Your task to perform on an android device: Search for Italian restaurants on Maps Image 0: 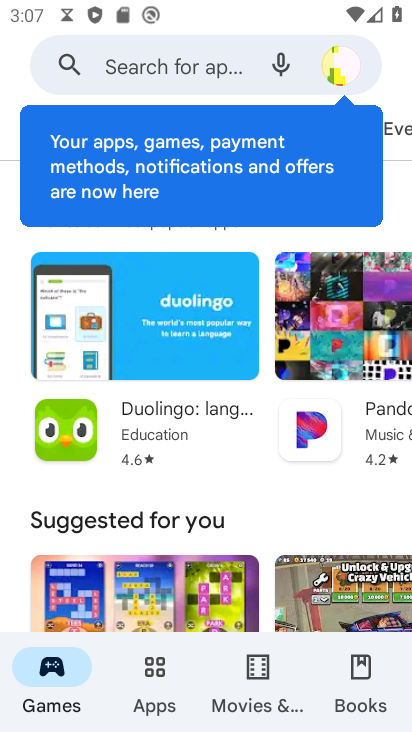
Step 0: press home button
Your task to perform on an android device: Search for Italian restaurants on Maps Image 1: 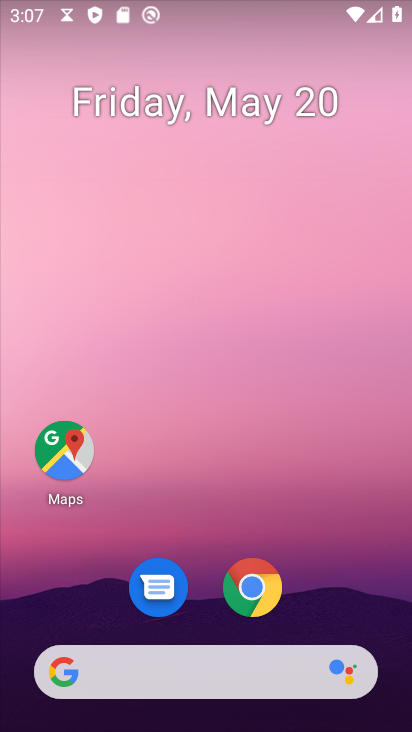
Step 1: click (54, 458)
Your task to perform on an android device: Search for Italian restaurants on Maps Image 2: 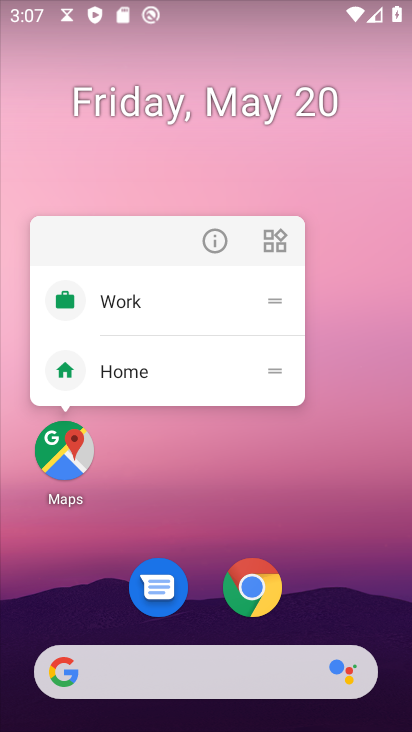
Step 2: click (54, 458)
Your task to perform on an android device: Search for Italian restaurants on Maps Image 3: 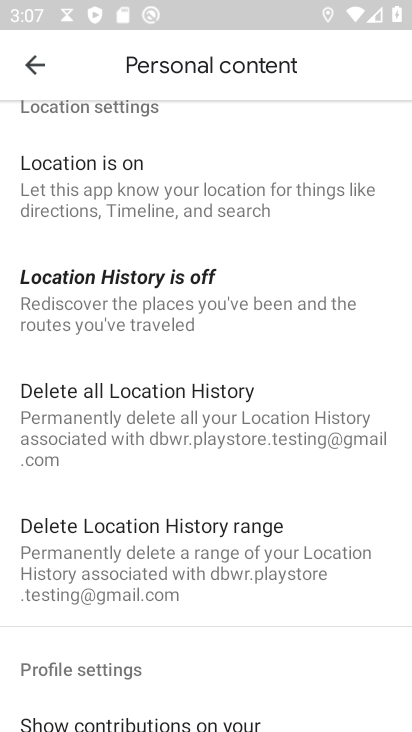
Step 3: click (37, 67)
Your task to perform on an android device: Search for Italian restaurants on Maps Image 4: 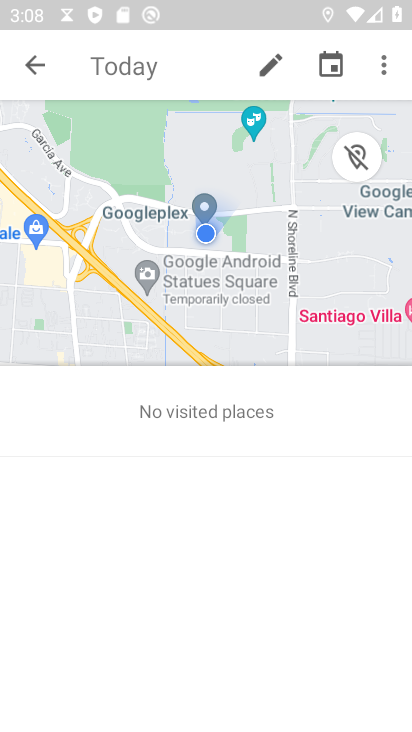
Step 4: click (37, 67)
Your task to perform on an android device: Search for Italian restaurants on Maps Image 5: 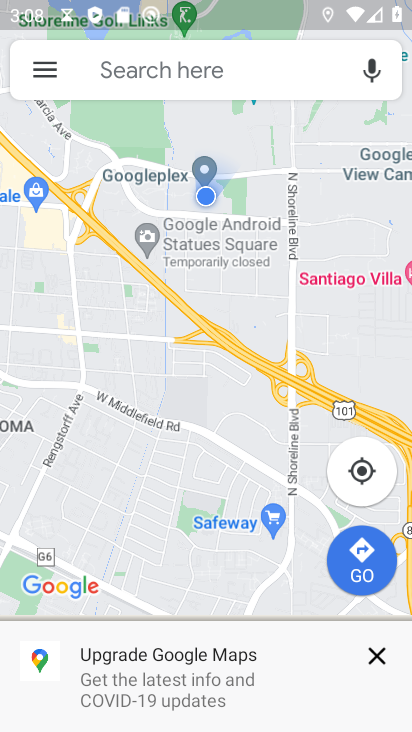
Step 5: click (123, 63)
Your task to perform on an android device: Search for Italian restaurants on Maps Image 6: 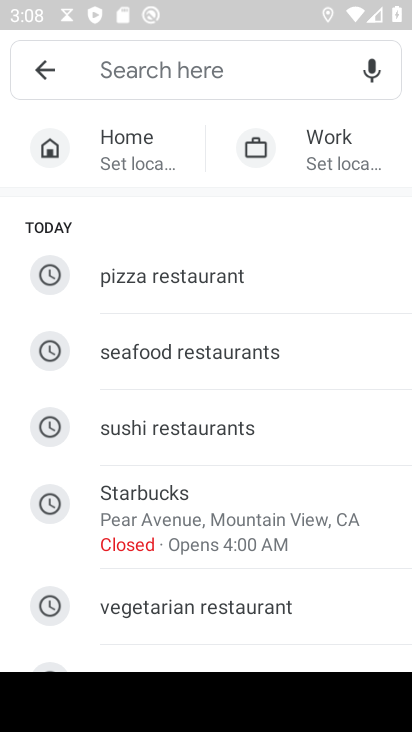
Step 6: drag from (231, 687) to (327, 731)
Your task to perform on an android device: Search for Italian restaurants on Maps Image 7: 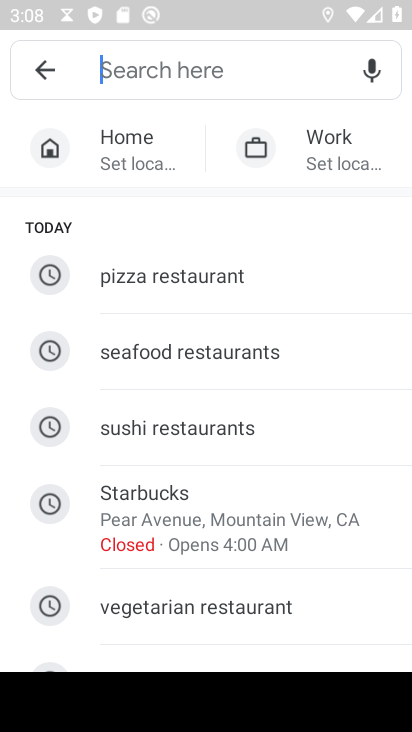
Step 7: type "Italian restaurants"
Your task to perform on an android device: Search for Italian restaurants on Maps Image 8: 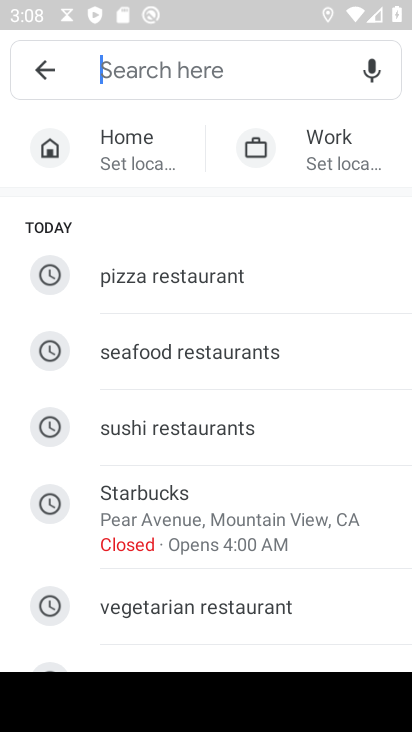
Step 8: drag from (327, 731) to (405, 190)
Your task to perform on an android device: Search for Italian restaurants on Maps Image 9: 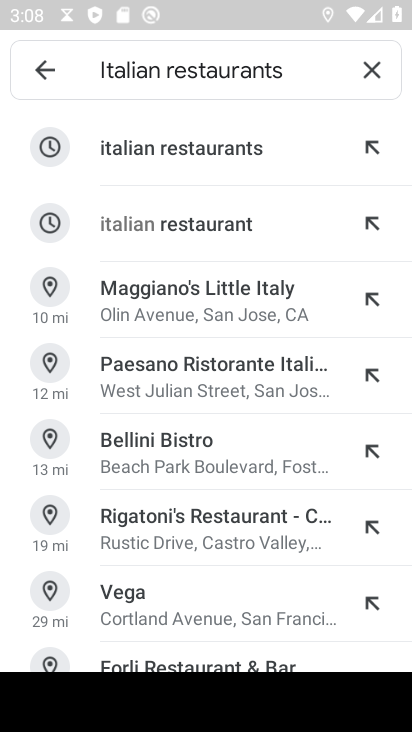
Step 9: click (247, 160)
Your task to perform on an android device: Search for Italian restaurants on Maps Image 10: 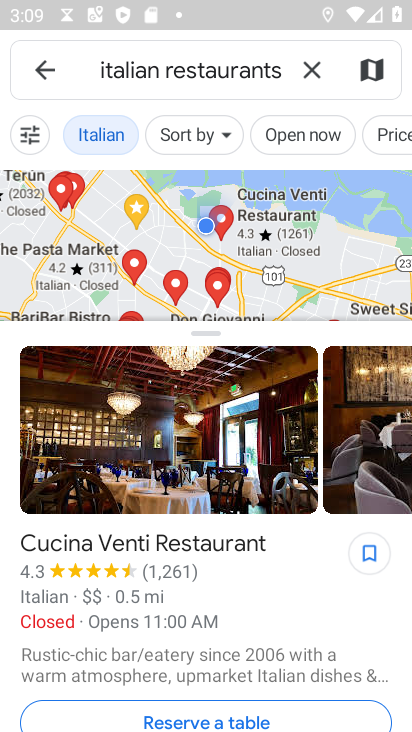
Step 10: task complete